Your task to perform on an android device: Go to Maps Image 0: 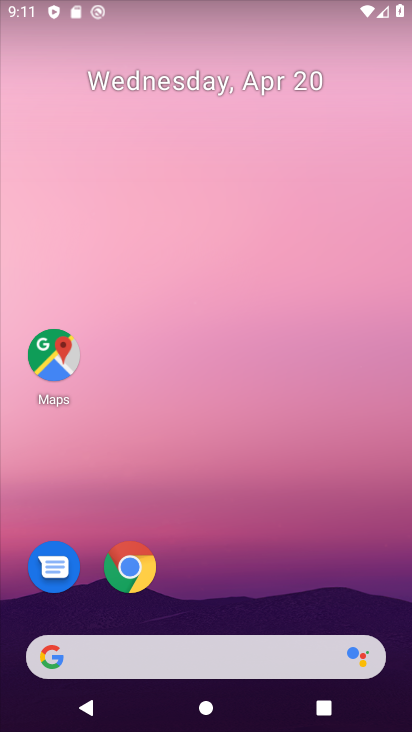
Step 0: drag from (350, 542) to (357, 238)
Your task to perform on an android device: Go to Maps Image 1: 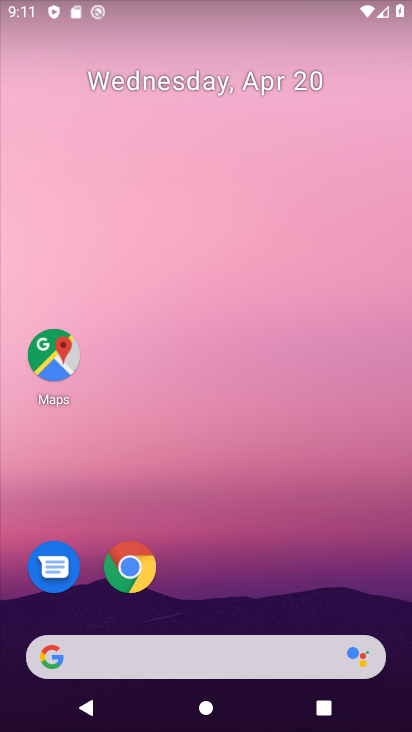
Step 1: drag from (331, 544) to (353, 121)
Your task to perform on an android device: Go to Maps Image 2: 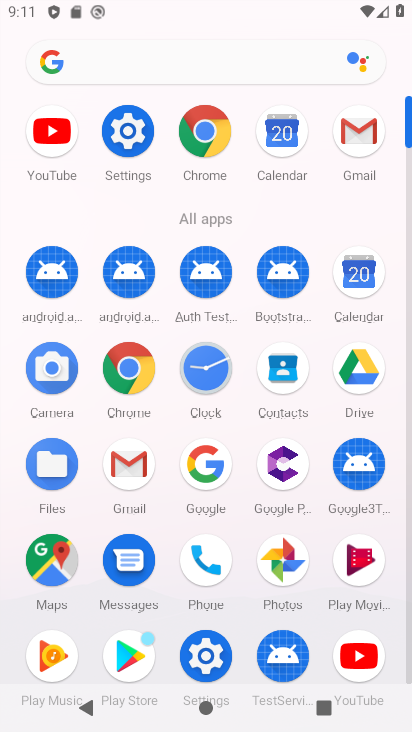
Step 2: click (59, 565)
Your task to perform on an android device: Go to Maps Image 3: 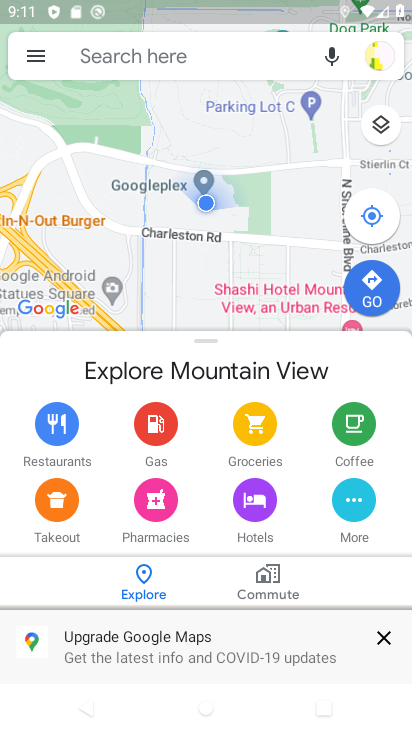
Step 3: task complete